Your task to perform on an android device: turn smart compose on in the gmail app Image 0: 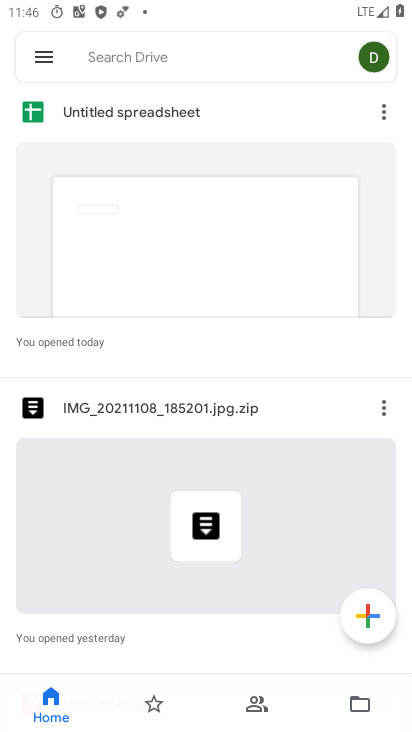
Step 0: press home button
Your task to perform on an android device: turn smart compose on in the gmail app Image 1: 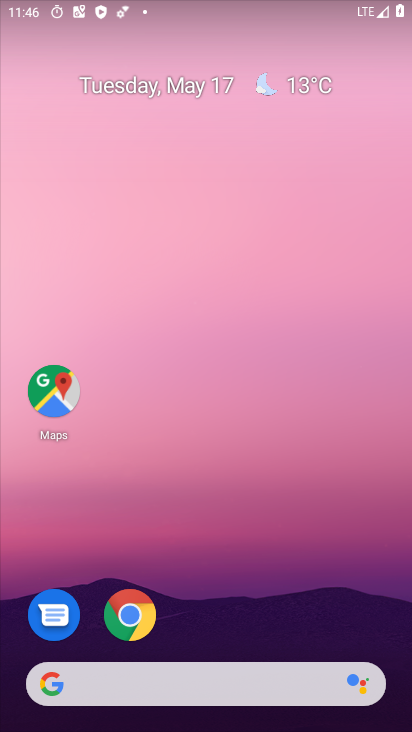
Step 1: drag from (146, 675) to (249, 121)
Your task to perform on an android device: turn smart compose on in the gmail app Image 2: 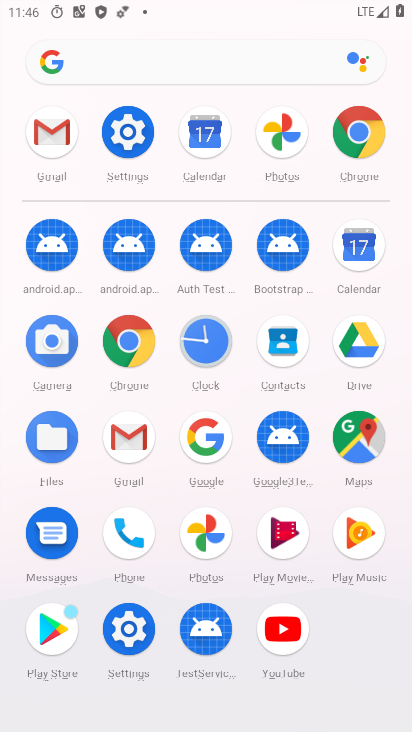
Step 2: click (50, 134)
Your task to perform on an android device: turn smart compose on in the gmail app Image 3: 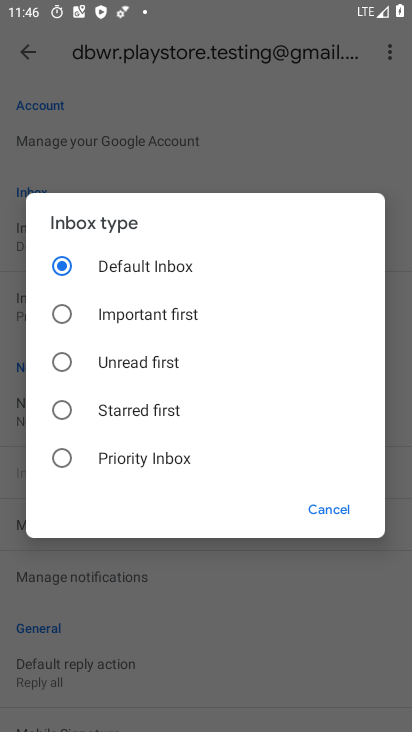
Step 3: click (348, 509)
Your task to perform on an android device: turn smart compose on in the gmail app Image 4: 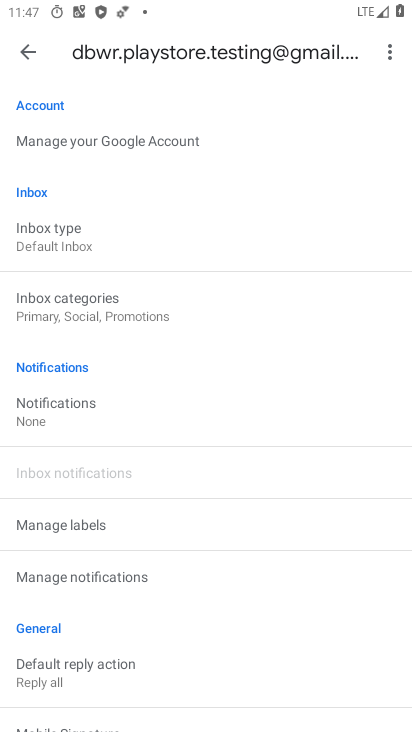
Step 4: task complete